Your task to perform on an android device: Open Google Chrome and click the shortcut for Amazon.com Image 0: 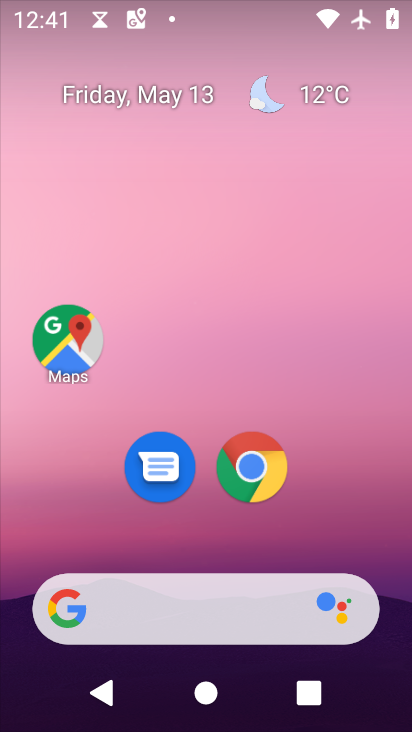
Step 0: click (257, 463)
Your task to perform on an android device: Open Google Chrome and click the shortcut for Amazon.com Image 1: 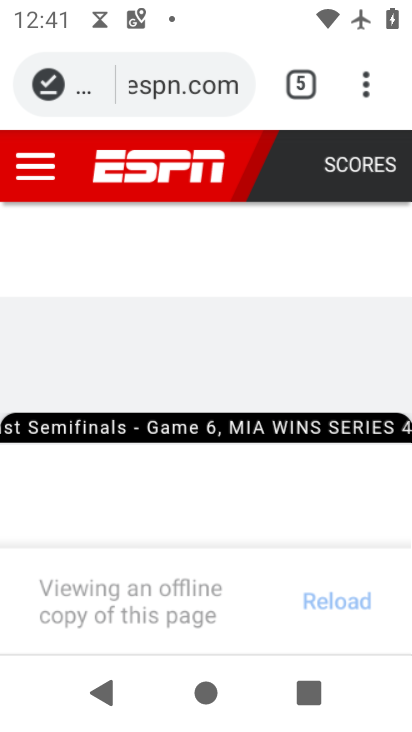
Step 1: click (308, 81)
Your task to perform on an android device: Open Google Chrome and click the shortcut for Amazon.com Image 2: 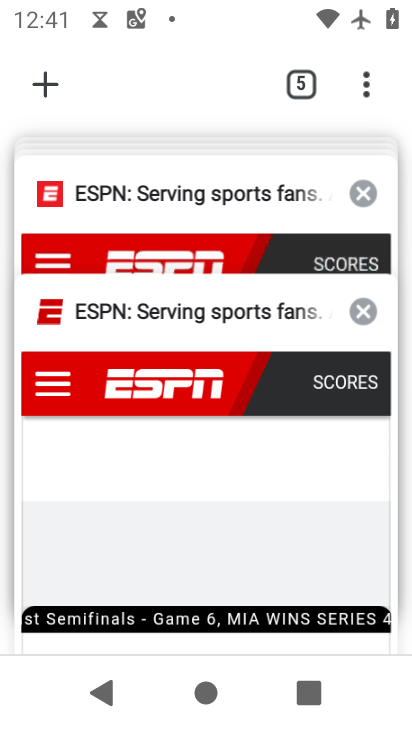
Step 2: click (45, 77)
Your task to perform on an android device: Open Google Chrome and click the shortcut for Amazon.com Image 3: 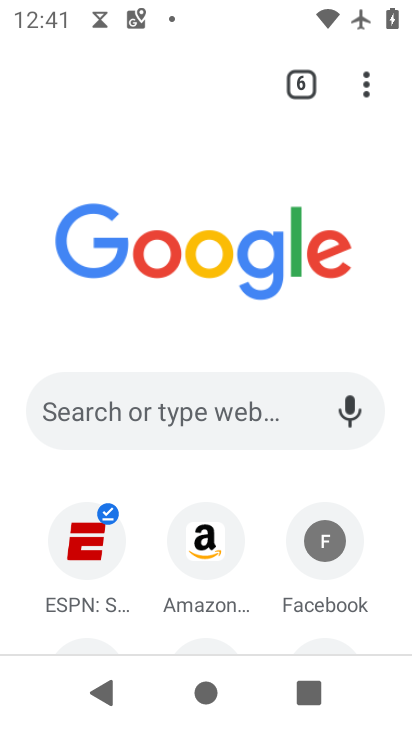
Step 3: click (208, 541)
Your task to perform on an android device: Open Google Chrome and click the shortcut for Amazon.com Image 4: 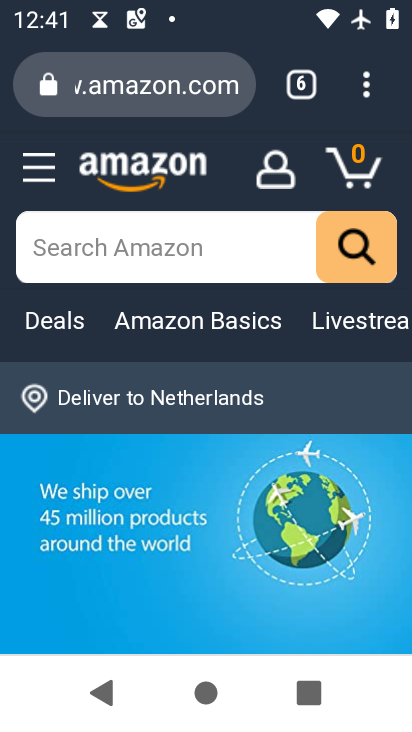
Step 4: task complete